Your task to perform on an android device: Go to calendar. Show me events next week Image 0: 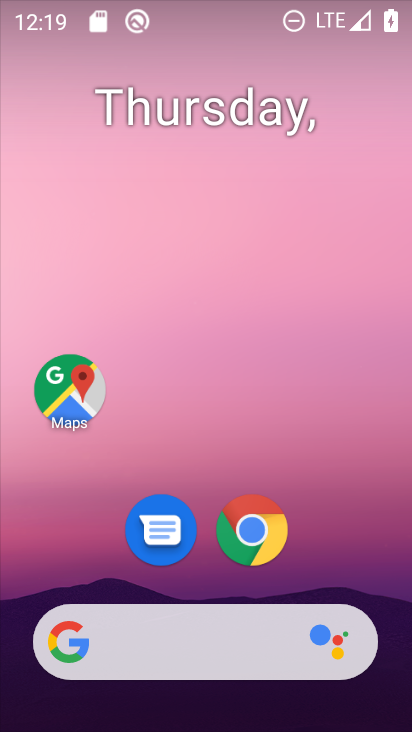
Step 0: drag from (178, 639) to (203, 134)
Your task to perform on an android device: Go to calendar. Show me events next week Image 1: 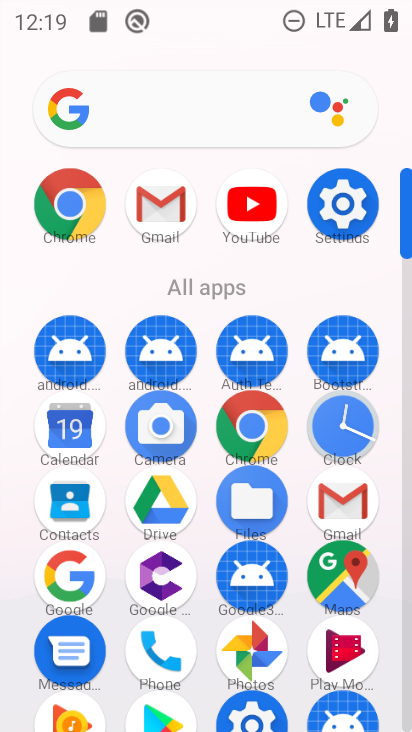
Step 1: click (75, 430)
Your task to perform on an android device: Go to calendar. Show me events next week Image 2: 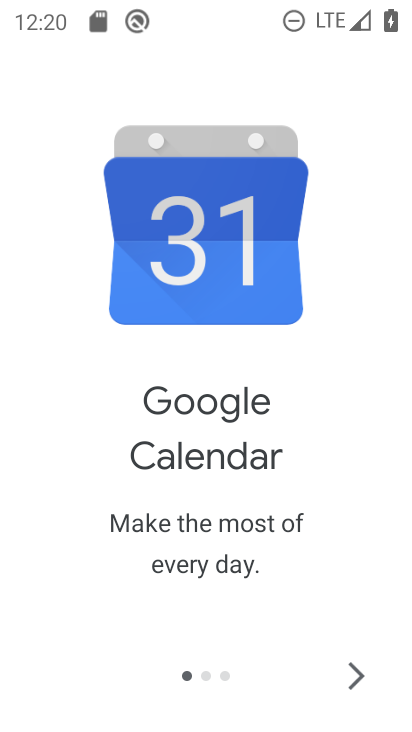
Step 2: click (360, 686)
Your task to perform on an android device: Go to calendar. Show me events next week Image 3: 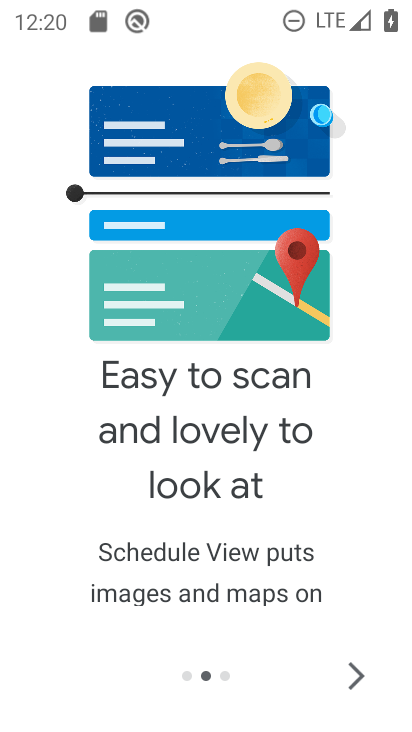
Step 3: click (360, 686)
Your task to perform on an android device: Go to calendar. Show me events next week Image 4: 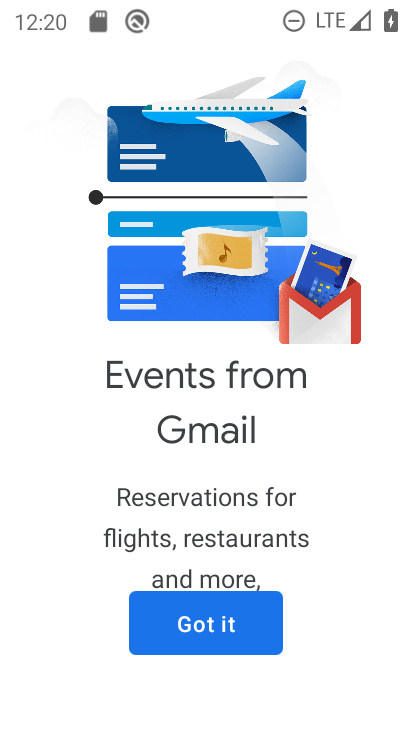
Step 4: click (232, 650)
Your task to perform on an android device: Go to calendar. Show me events next week Image 5: 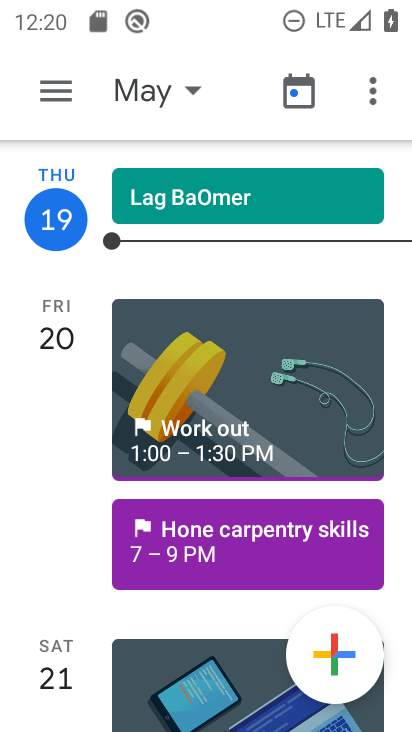
Step 5: click (60, 98)
Your task to perform on an android device: Go to calendar. Show me events next week Image 6: 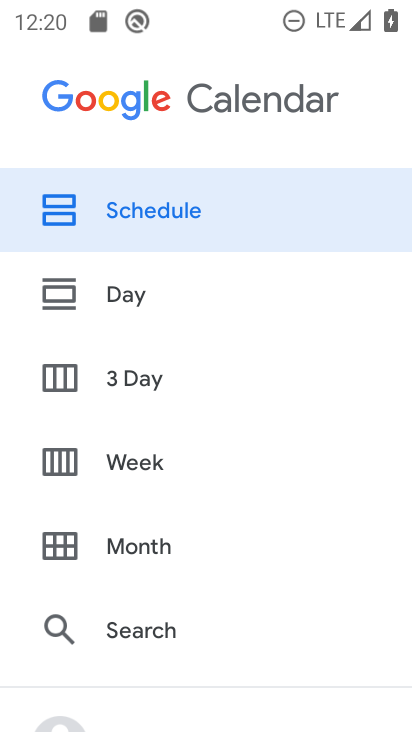
Step 6: click (120, 468)
Your task to perform on an android device: Go to calendar. Show me events next week Image 7: 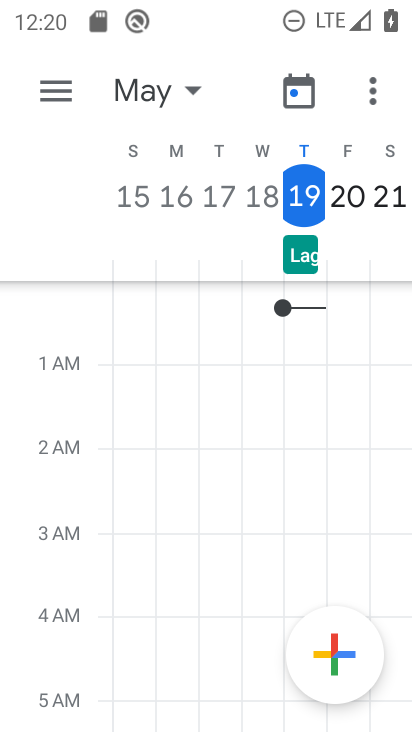
Step 7: task complete